Your task to perform on an android device: turn on improve location accuracy Image 0: 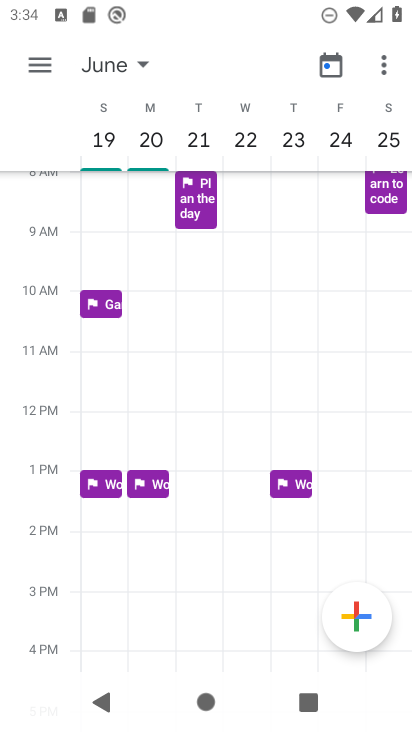
Step 0: press home button
Your task to perform on an android device: turn on improve location accuracy Image 1: 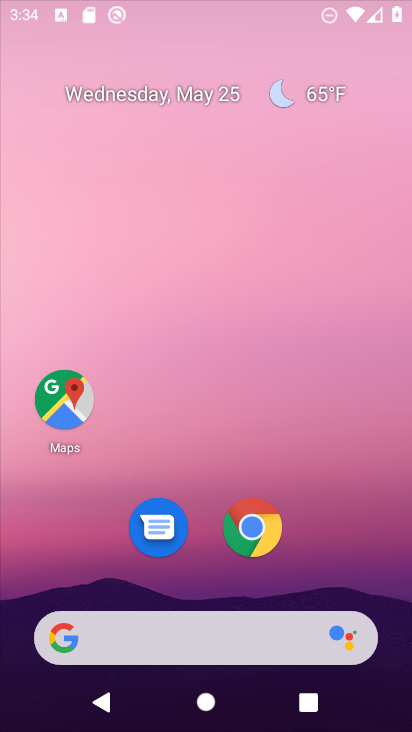
Step 1: drag from (285, 647) to (250, 0)
Your task to perform on an android device: turn on improve location accuracy Image 2: 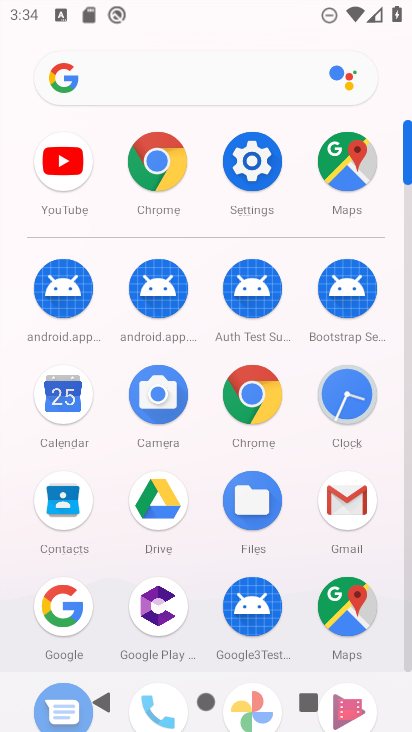
Step 2: click (239, 150)
Your task to perform on an android device: turn on improve location accuracy Image 3: 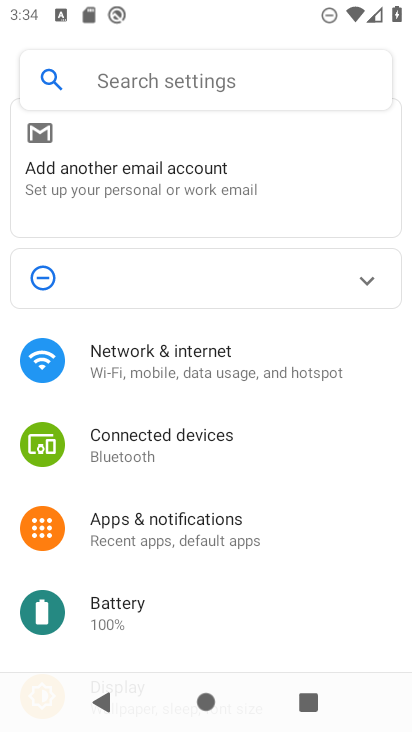
Step 3: drag from (284, 631) to (270, 133)
Your task to perform on an android device: turn on improve location accuracy Image 4: 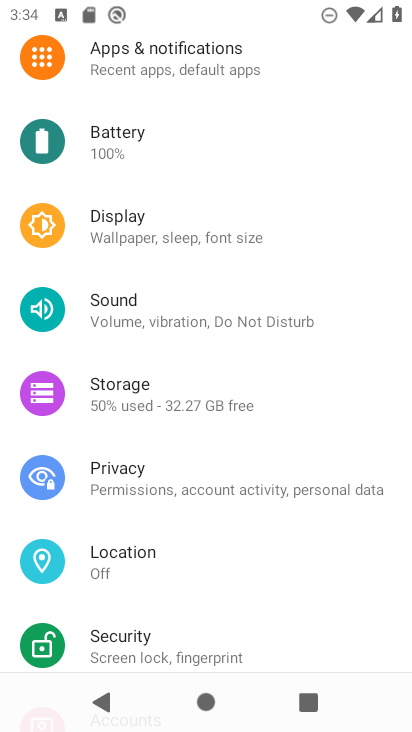
Step 4: click (203, 559)
Your task to perform on an android device: turn on improve location accuracy Image 5: 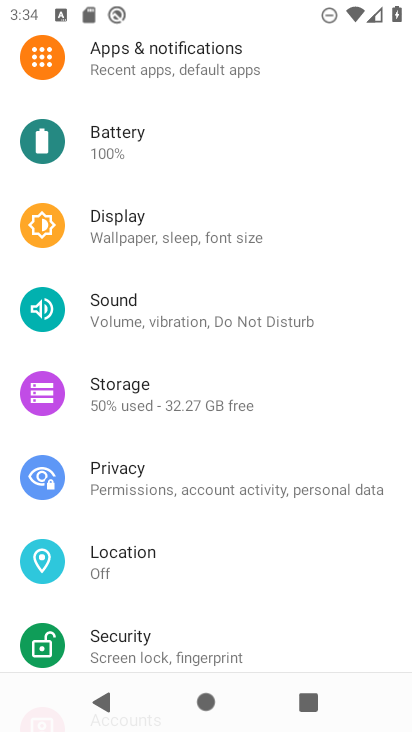
Step 5: click (201, 576)
Your task to perform on an android device: turn on improve location accuracy Image 6: 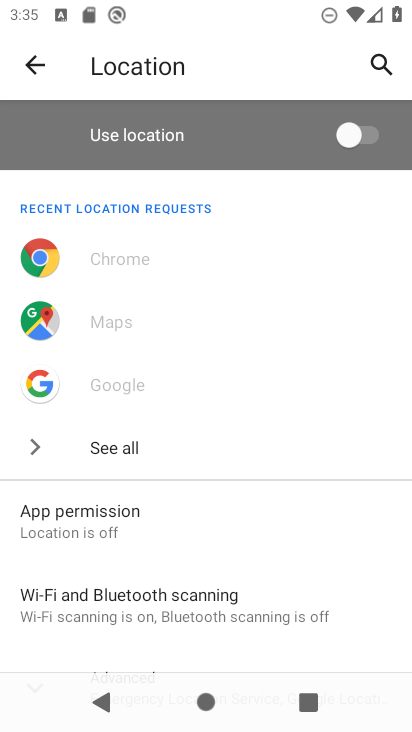
Step 6: drag from (223, 579) to (234, 73)
Your task to perform on an android device: turn on improve location accuracy Image 7: 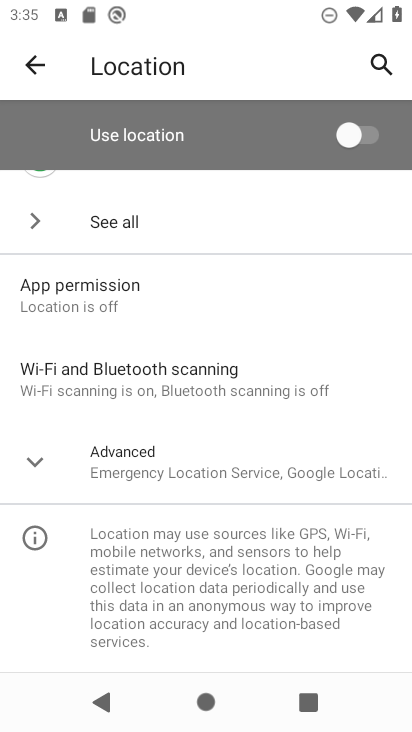
Step 7: click (194, 459)
Your task to perform on an android device: turn on improve location accuracy Image 8: 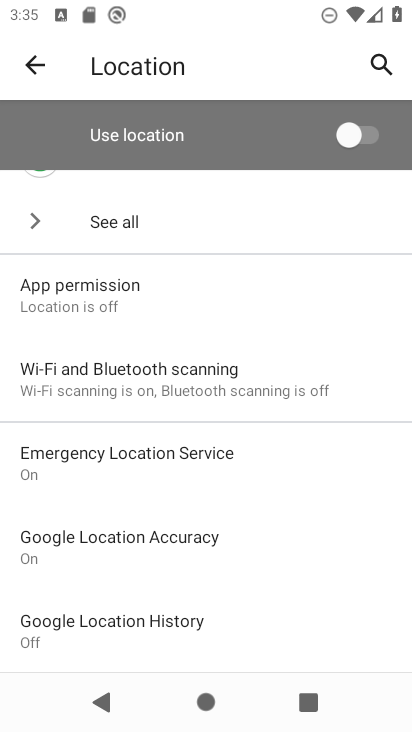
Step 8: click (95, 548)
Your task to perform on an android device: turn on improve location accuracy Image 9: 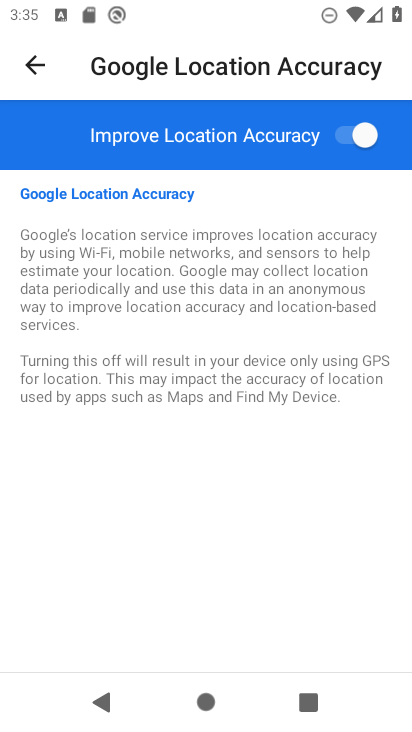
Step 9: task complete